Your task to perform on an android device: Search for razer huntsman on ebay.com, select the first entry, add it to the cart, then select checkout. Image 0: 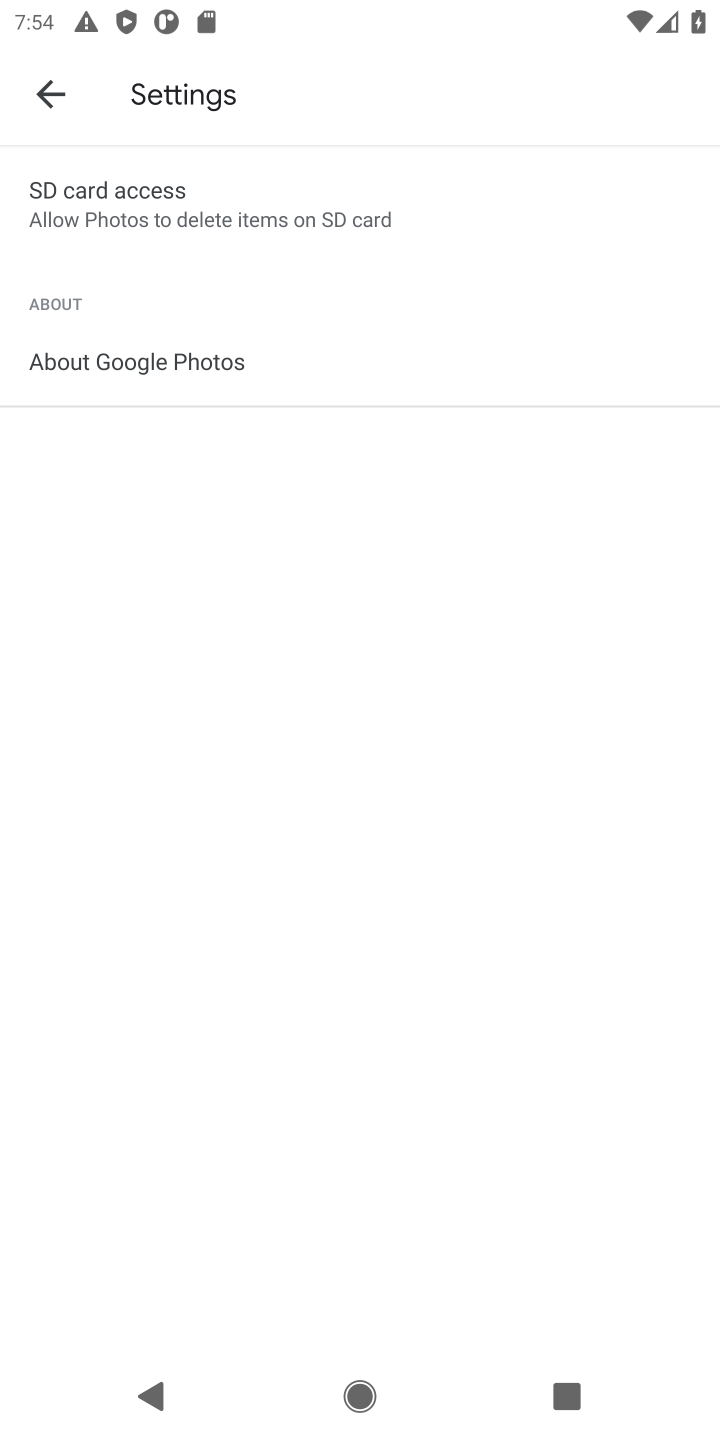
Step 0: press home button
Your task to perform on an android device: Search for razer huntsman on ebay.com, select the first entry, add it to the cart, then select checkout. Image 1: 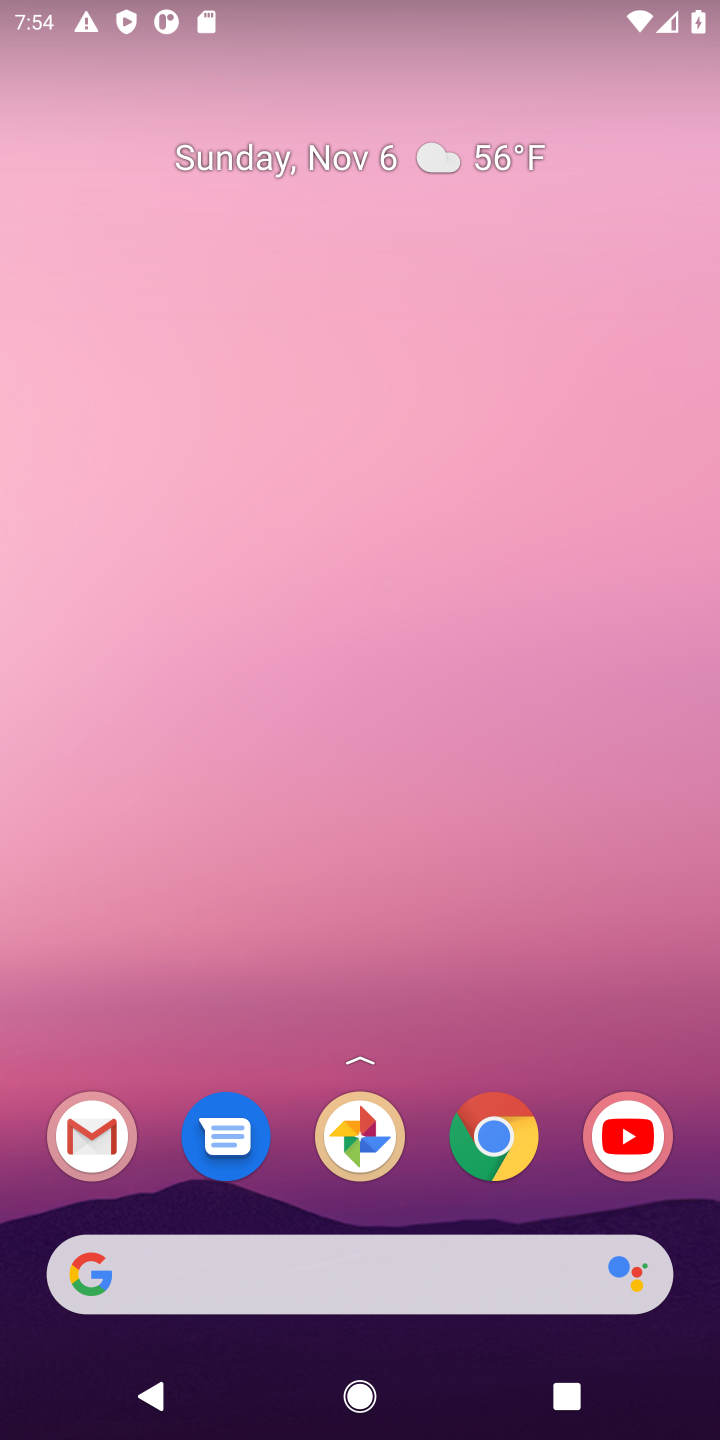
Step 1: click (355, 1240)
Your task to perform on an android device: Search for razer huntsman on ebay.com, select the first entry, add it to the cart, then select checkout. Image 2: 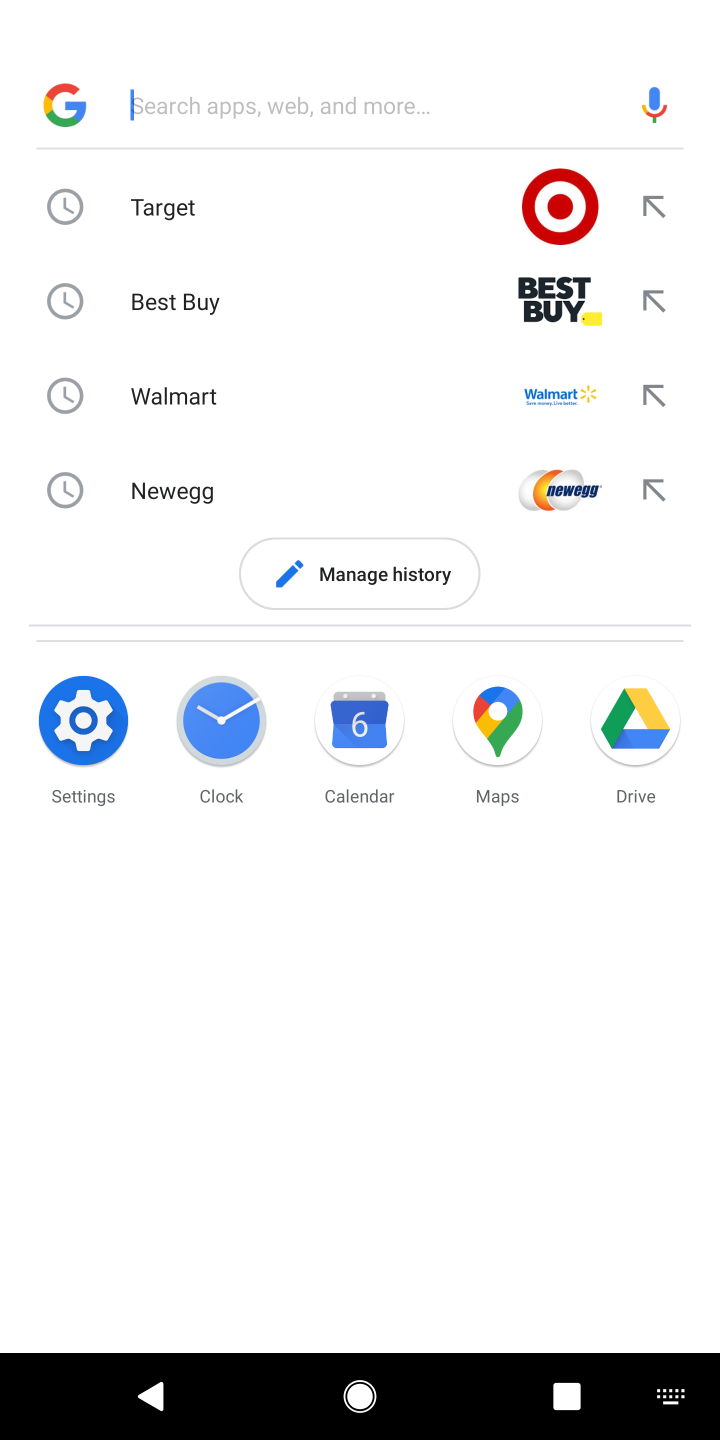
Step 2: click (482, 201)
Your task to perform on an android device: Search for razer huntsman on ebay.com, select the first entry, add it to the cart, then select checkout. Image 3: 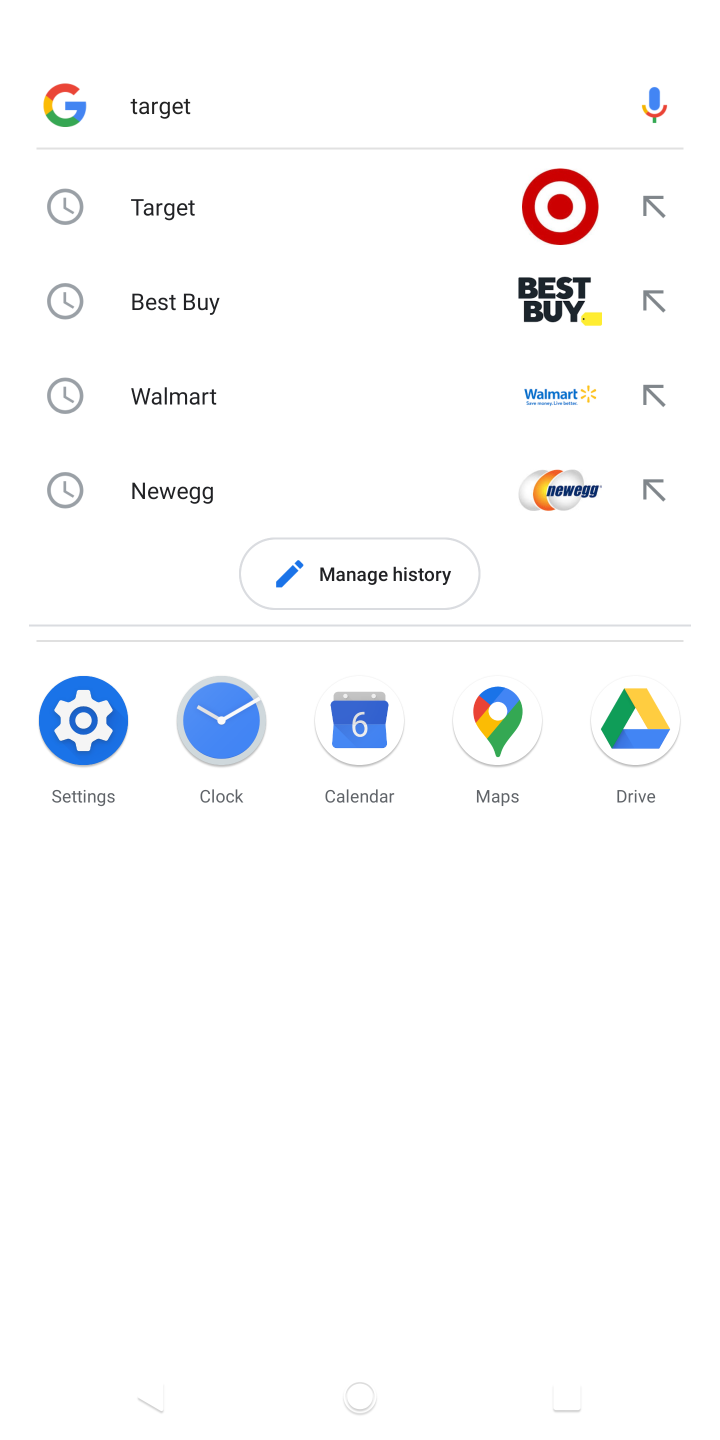
Step 3: task complete